Your task to perform on an android device: What is the recent news? Image 0: 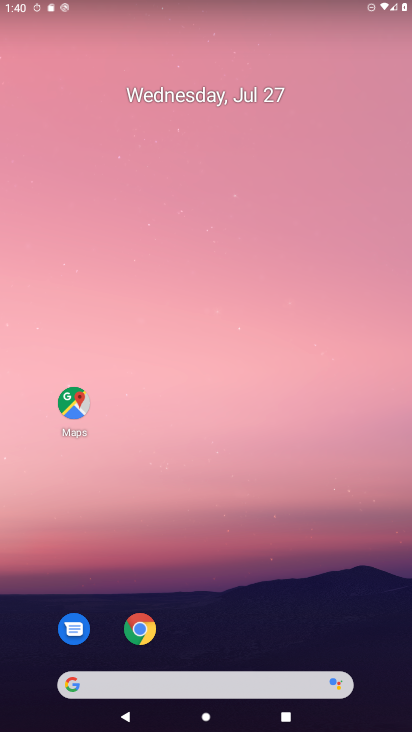
Step 0: press home button
Your task to perform on an android device: What is the recent news? Image 1: 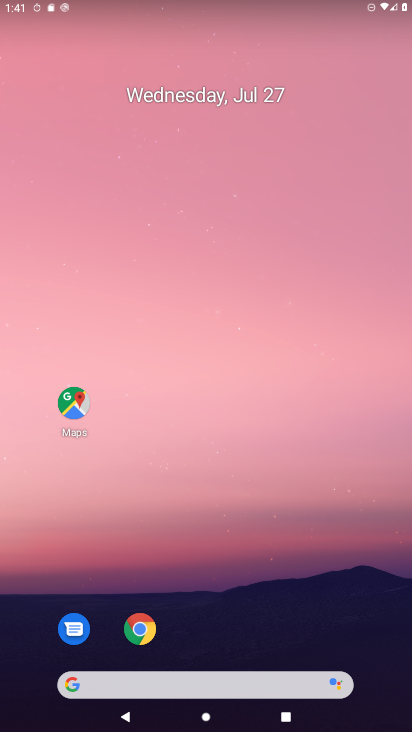
Step 1: click (65, 685)
Your task to perform on an android device: What is the recent news? Image 2: 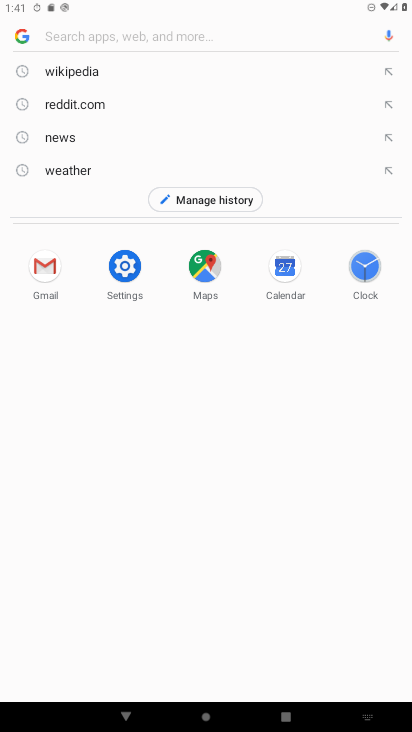
Step 2: type "recent news?"
Your task to perform on an android device: What is the recent news? Image 3: 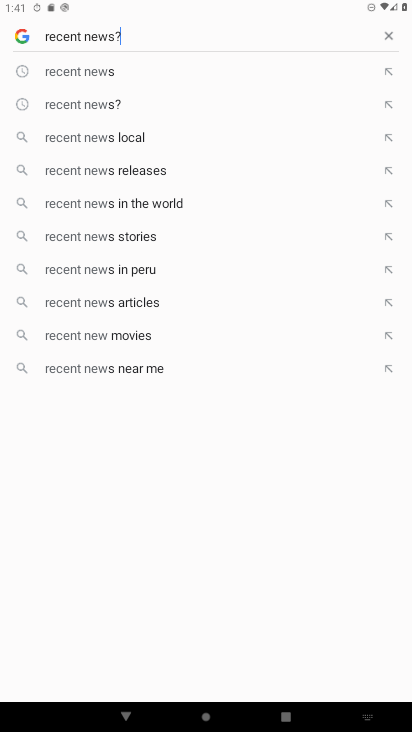
Step 3: press enter
Your task to perform on an android device: What is the recent news? Image 4: 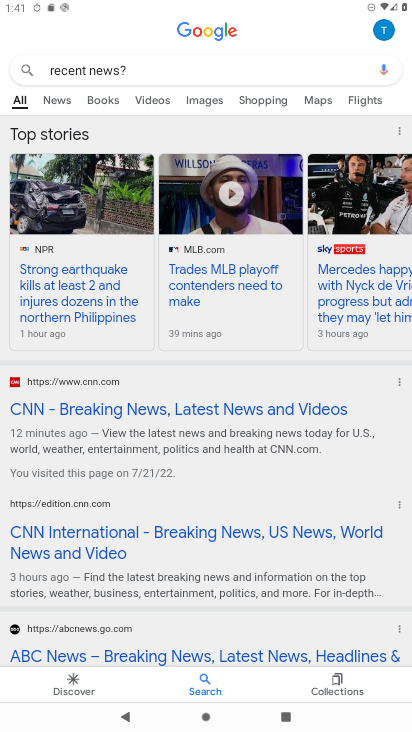
Step 4: task complete